Your task to perform on an android device: Open calendar and show me the first week of next month Image 0: 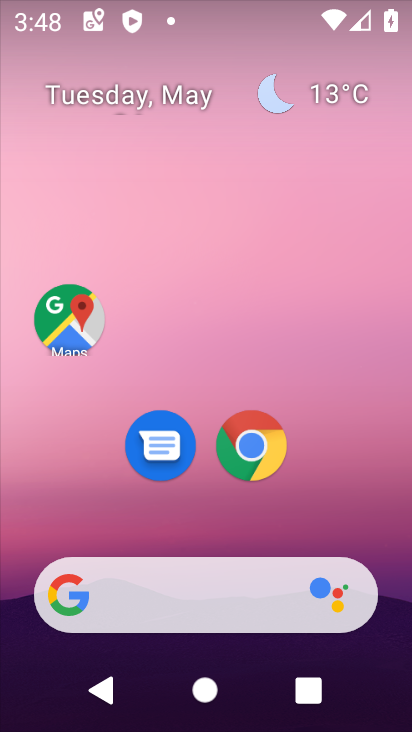
Step 0: drag from (208, 524) to (207, 59)
Your task to perform on an android device: Open calendar and show me the first week of next month Image 1: 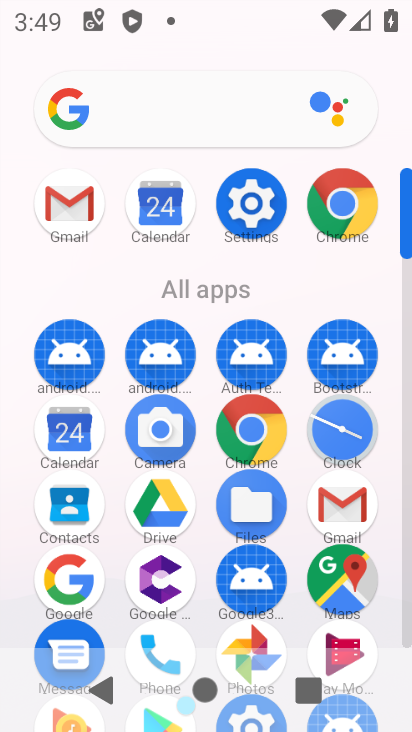
Step 1: click (160, 199)
Your task to perform on an android device: Open calendar and show me the first week of next month Image 2: 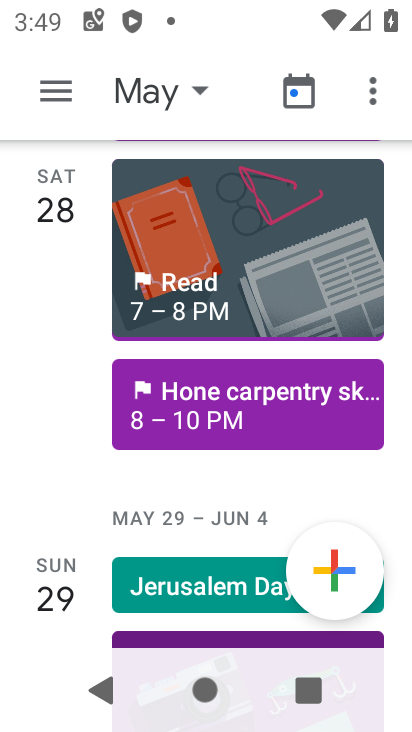
Step 2: click (48, 90)
Your task to perform on an android device: Open calendar and show me the first week of next month Image 3: 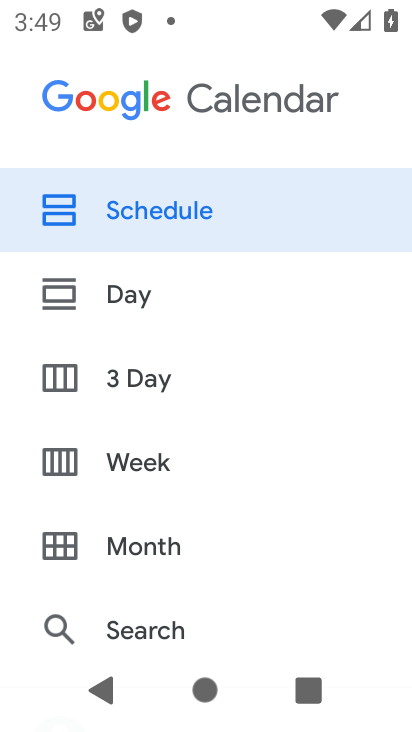
Step 3: click (106, 460)
Your task to perform on an android device: Open calendar and show me the first week of next month Image 4: 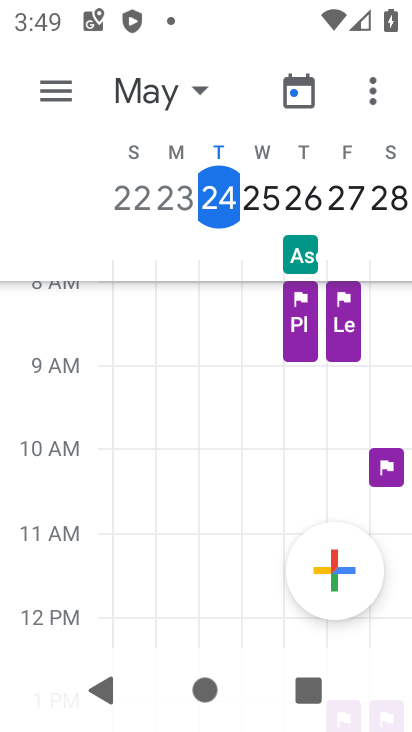
Step 4: drag from (382, 194) to (15, 291)
Your task to perform on an android device: Open calendar and show me the first week of next month Image 5: 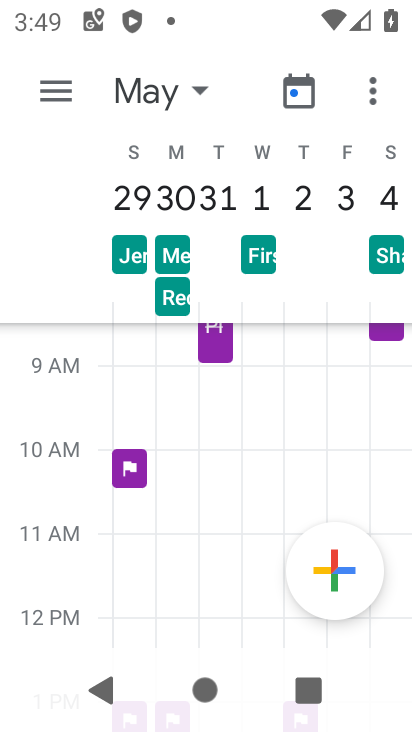
Step 5: click (260, 190)
Your task to perform on an android device: Open calendar and show me the first week of next month Image 6: 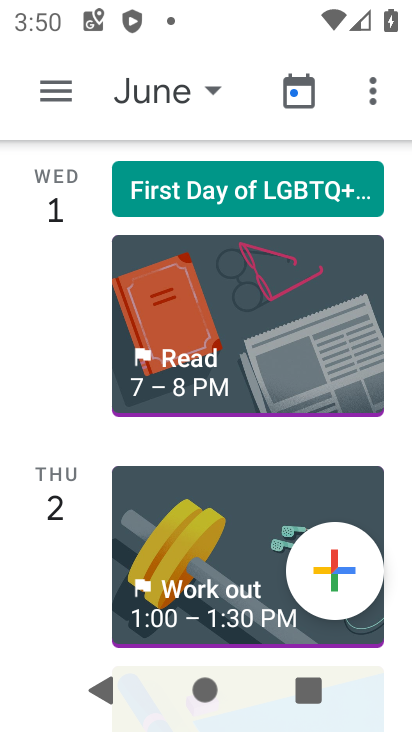
Step 6: task complete